Your task to perform on an android device: Search for pizza restaurants on Maps Image 0: 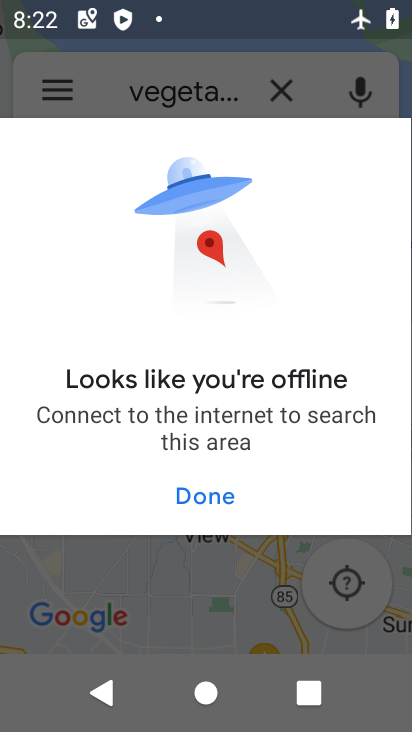
Step 0: press home button
Your task to perform on an android device: Search for pizza restaurants on Maps Image 1: 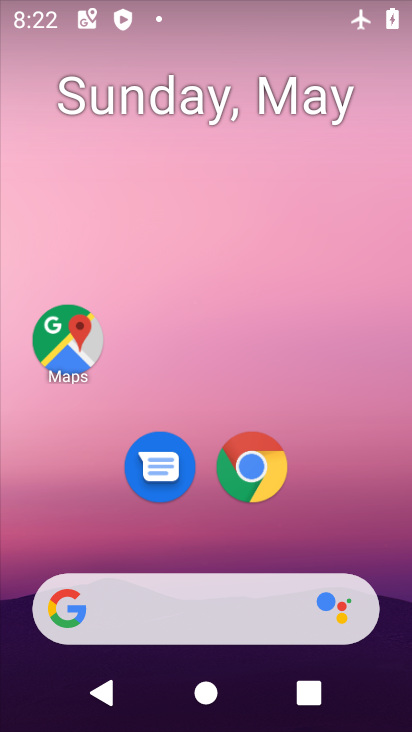
Step 1: click (80, 334)
Your task to perform on an android device: Search for pizza restaurants on Maps Image 2: 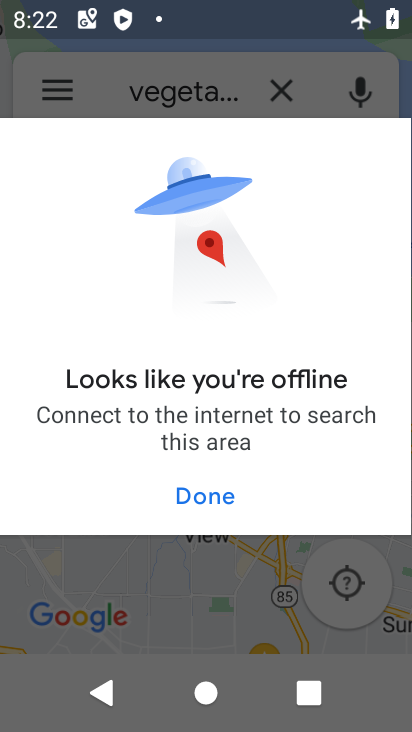
Step 2: click (204, 504)
Your task to perform on an android device: Search for pizza restaurants on Maps Image 3: 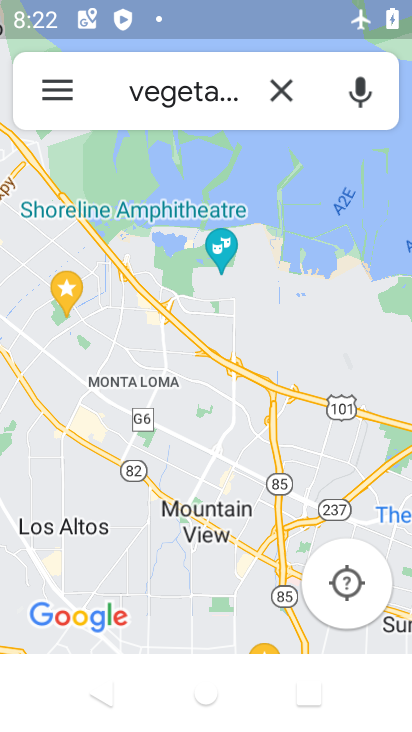
Step 3: drag from (298, 23) to (322, 588)
Your task to perform on an android device: Search for pizza restaurants on Maps Image 4: 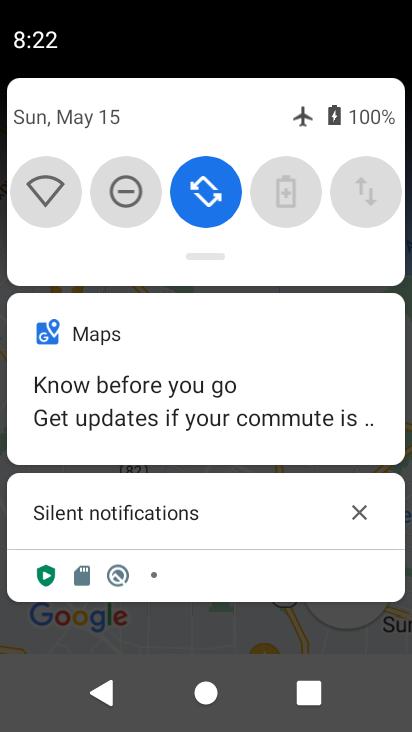
Step 4: drag from (248, 130) to (314, 617)
Your task to perform on an android device: Search for pizza restaurants on Maps Image 5: 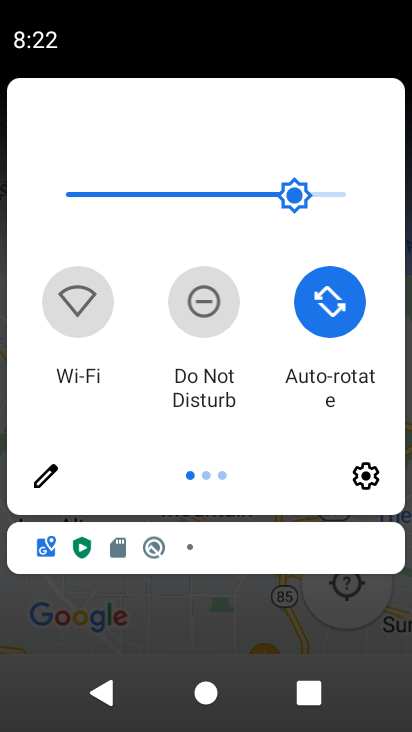
Step 5: drag from (384, 424) to (97, 448)
Your task to perform on an android device: Search for pizza restaurants on Maps Image 6: 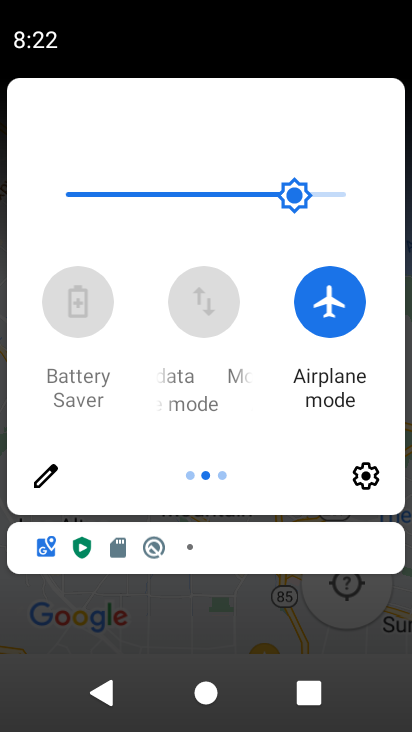
Step 6: click (343, 293)
Your task to perform on an android device: Search for pizza restaurants on Maps Image 7: 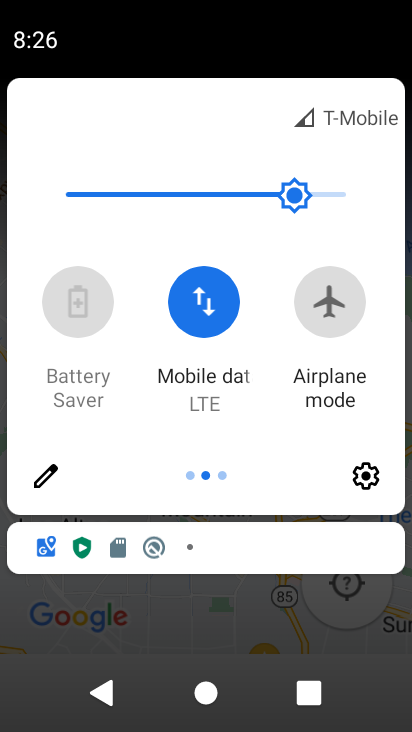
Step 7: task complete